Your task to perform on an android device: add a contact Image 0: 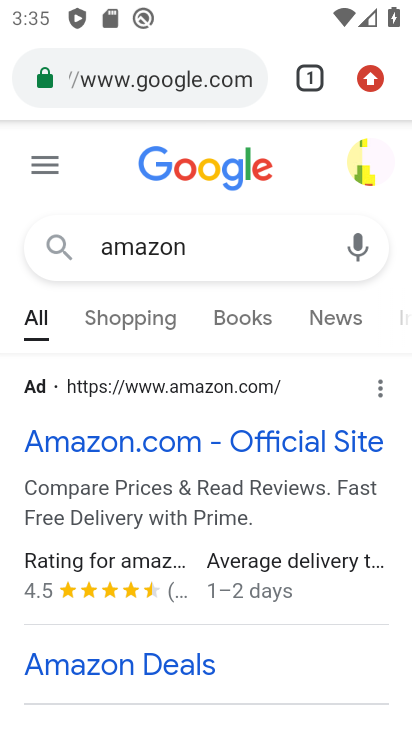
Step 0: press home button
Your task to perform on an android device: add a contact Image 1: 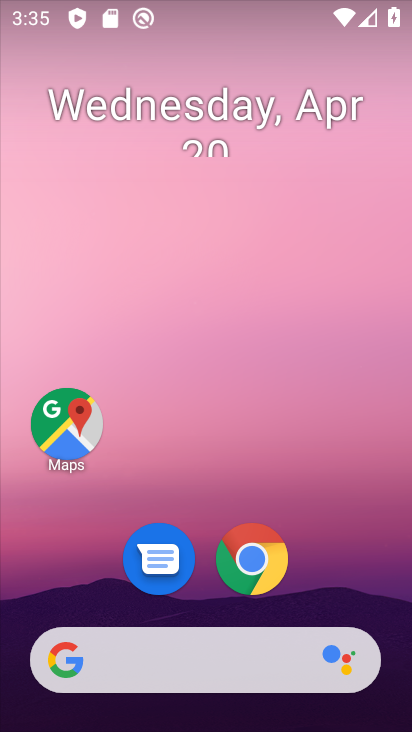
Step 1: drag from (210, 612) to (278, 227)
Your task to perform on an android device: add a contact Image 2: 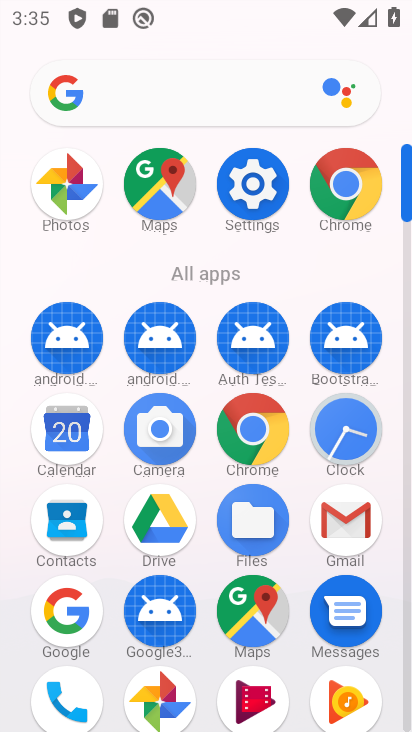
Step 2: drag from (213, 497) to (226, 415)
Your task to perform on an android device: add a contact Image 3: 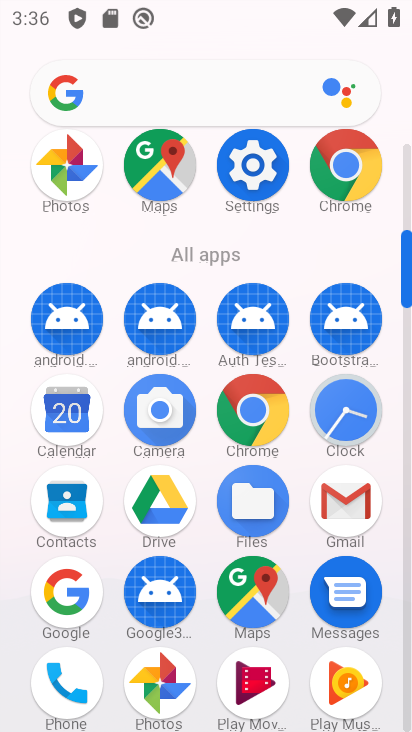
Step 3: click (68, 503)
Your task to perform on an android device: add a contact Image 4: 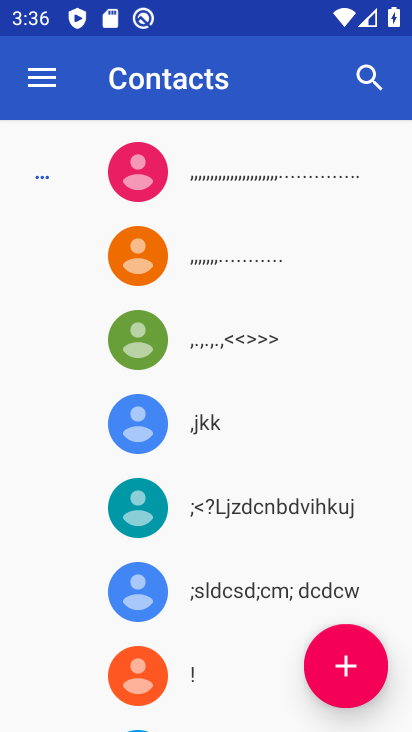
Step 4: click (345, 669)
Your task to perform on an android device: add a contact Image 5: 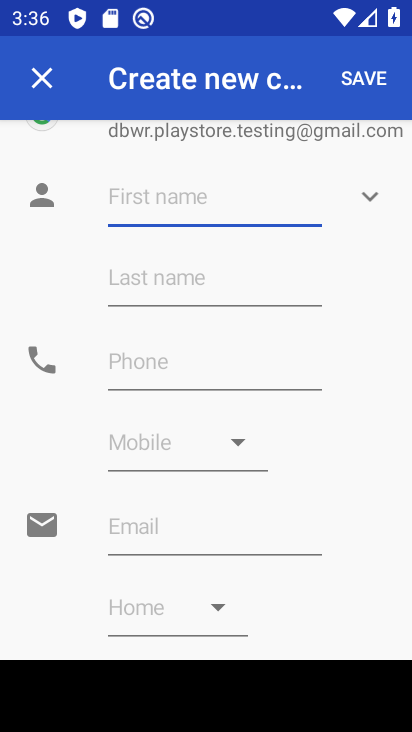
Step 5: click (147, 206)
Your task to perform on an android device: add a contact Image 6: 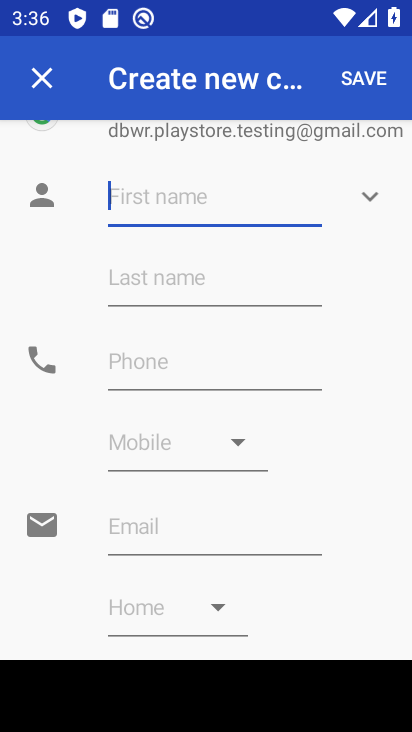
Step 6: type "fcrc"
Your task to perform on an android device: add a contact Image 7: 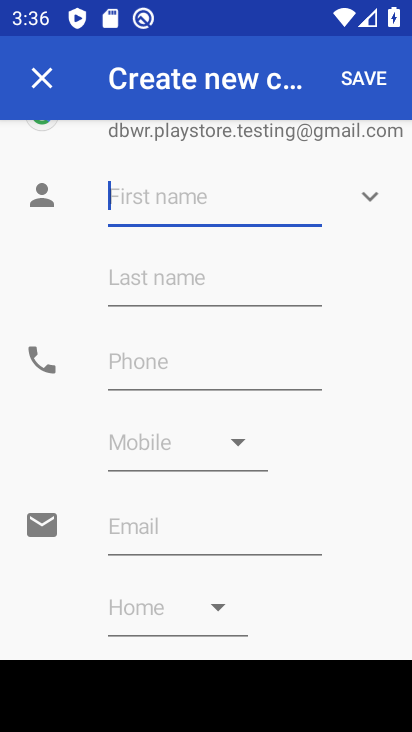
Step 7: click (205, 268)
Your task to perform on an android device: add a contact Image 8: 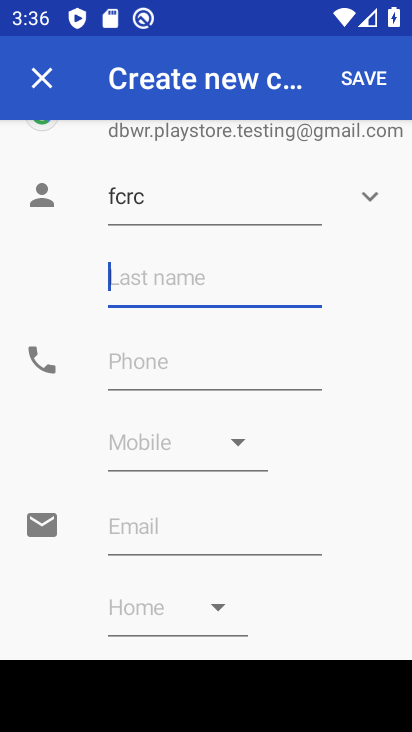
Step 8: type "fcvfvf"
Your task to perform on an android device: add a contact Image 9: 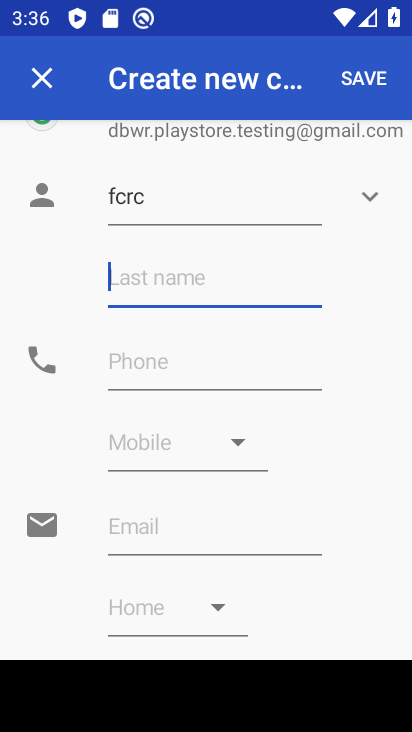
Step 9: click (171, 369)
Your task to perform on an android device: add a contact Image 10: 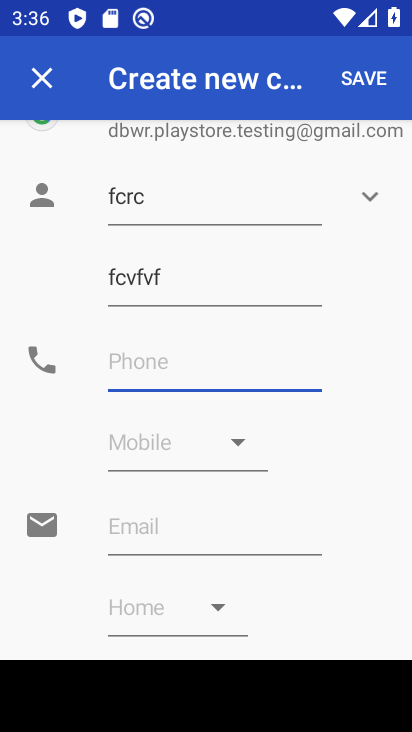
Step 10: type "46576"
Your task to perform on an android device: add a contact Image 11: 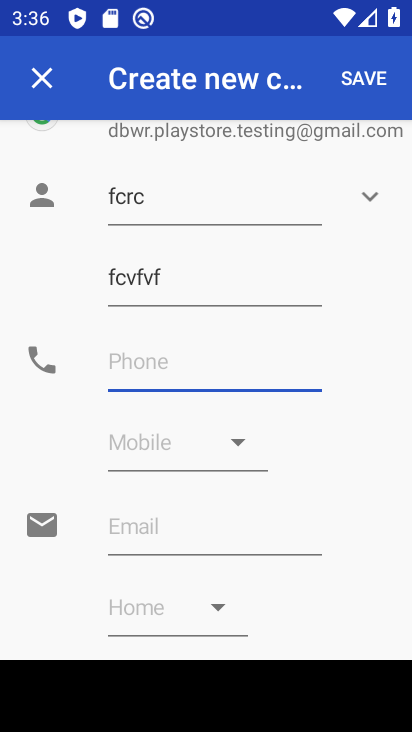
Step 11: click (176, 445)
Your task to perform on an android device: add a contact Image 12: 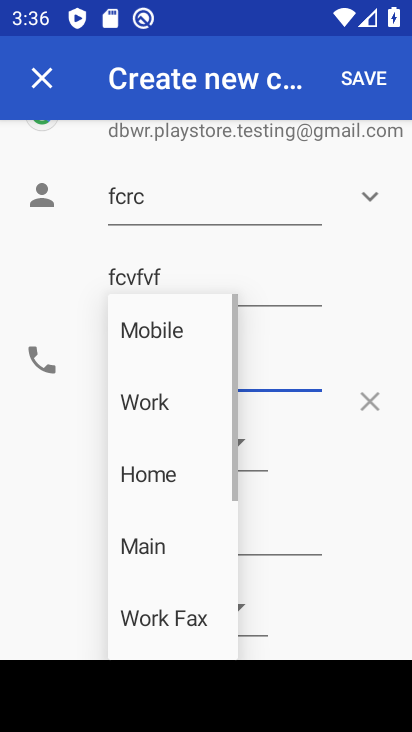
Step 12: click (377, 86)
Your task to perform on an android device: add a contact Image 13: 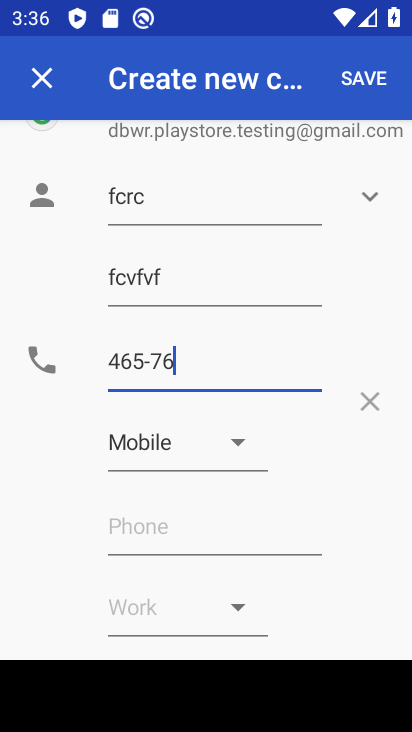
Step 13: click (359, 77)
Your task to perform on an android device: add a contact Image 14: 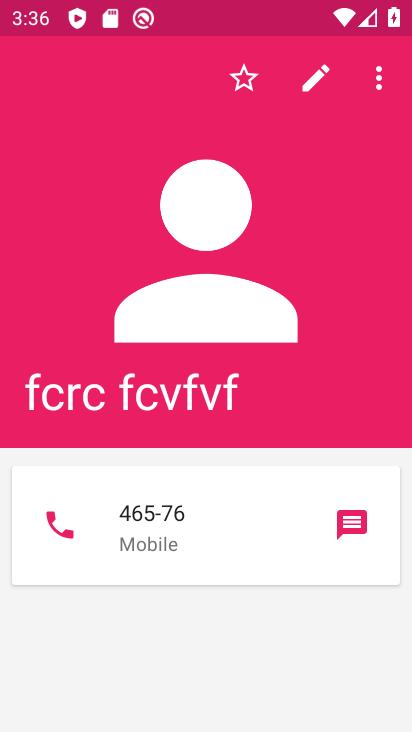
Step 14: task complete